Your task to perform on an android device: Open location settings Image 0: 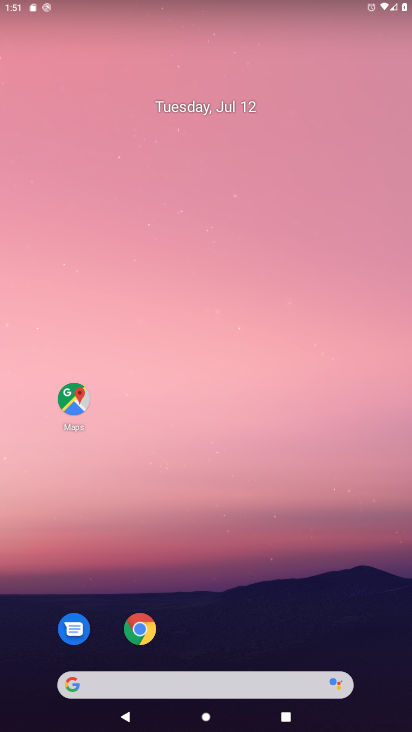
Step 0: drag from (271, 674) to (300, 167)
Your task to perform on an android device: Open location settings Image 1: 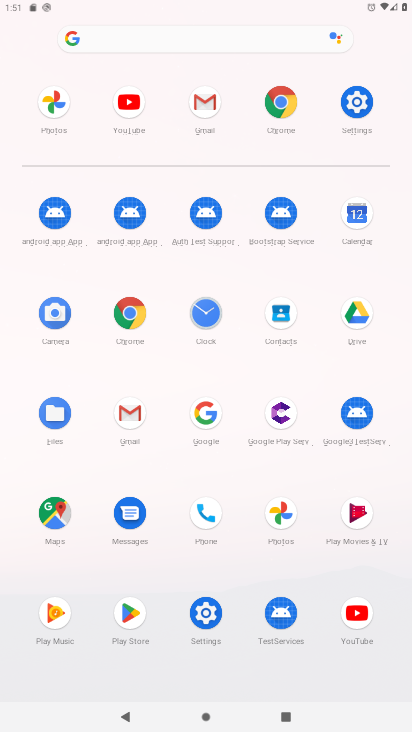
Step 1: click (356, 110)
Your task to perform on an android device: Open location settings Image 2: 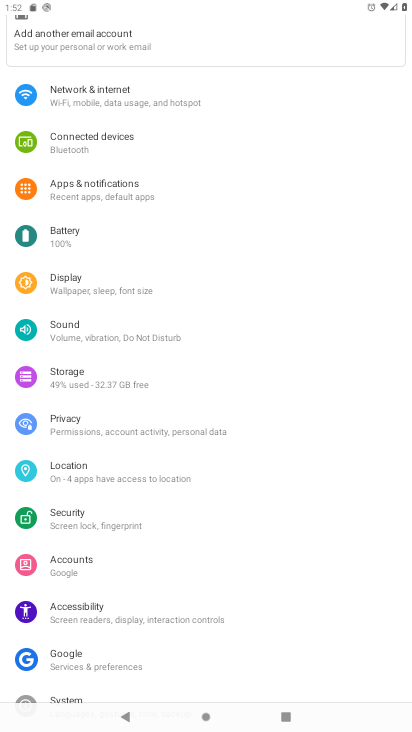
Step 2: click (98, 475)
Your task to perform on an android device: Open location settings Image 3: 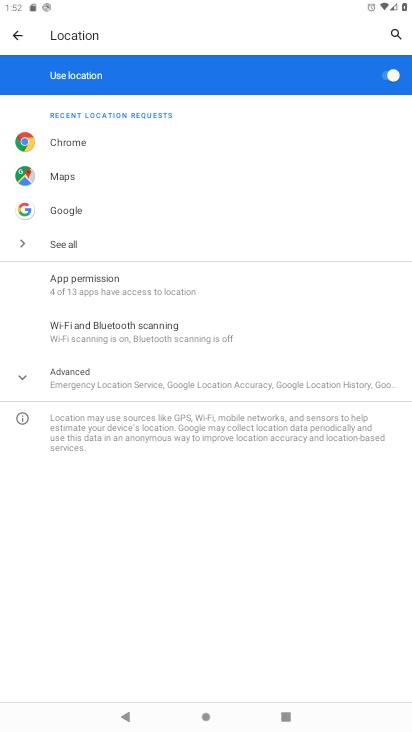
Step 3: task complete